Your task to perform on an android device: Open Wikipedia Image 0: 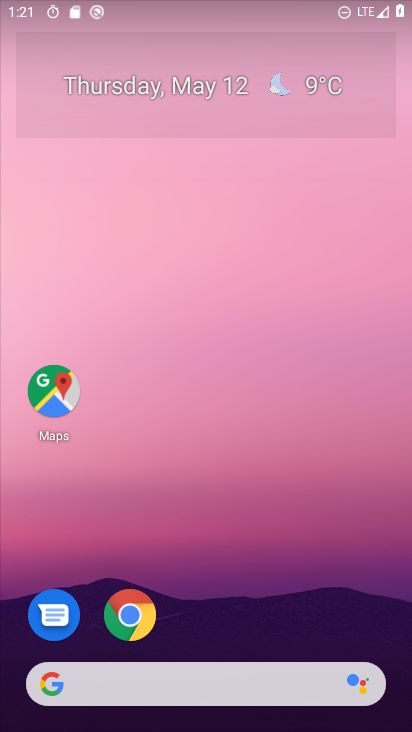
Step 0: click (138, 614)
Your task to perform on an android device: Open Wikipedia Image 1: 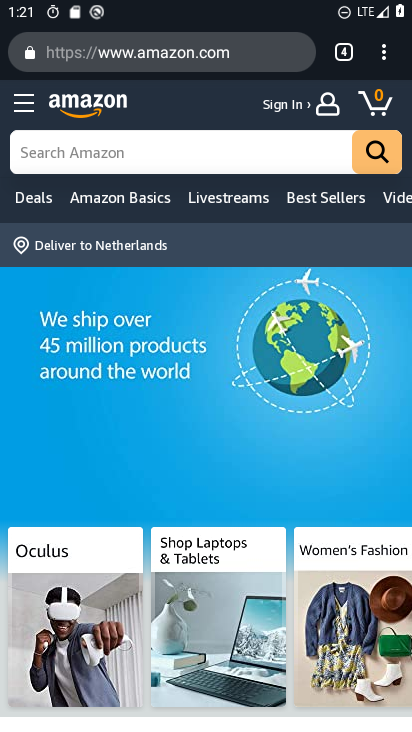
Step 1: click (212, 59)
Your task to perform on an android device: Open Wikipedia Image 2: 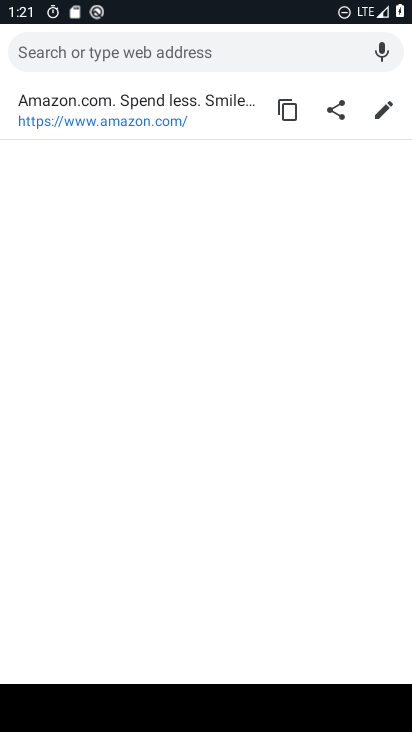
Step 2: type "wikipedia"
Your task to perform on an android device: Open Wikipedia Image 3: 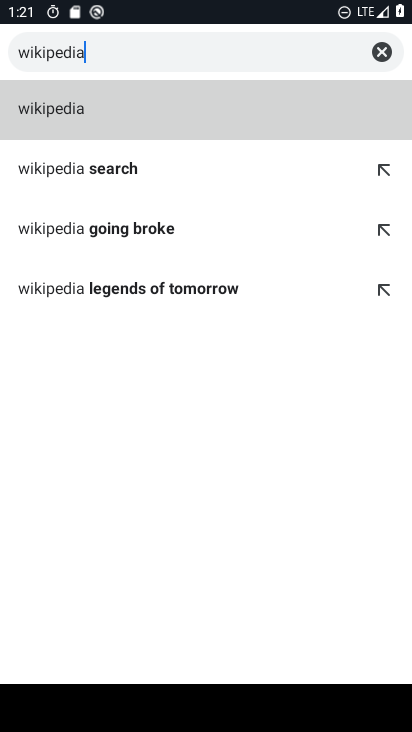
Step 3: click (68, 111)
Your task to perform on an android device: Open Wikipedia Image 4: 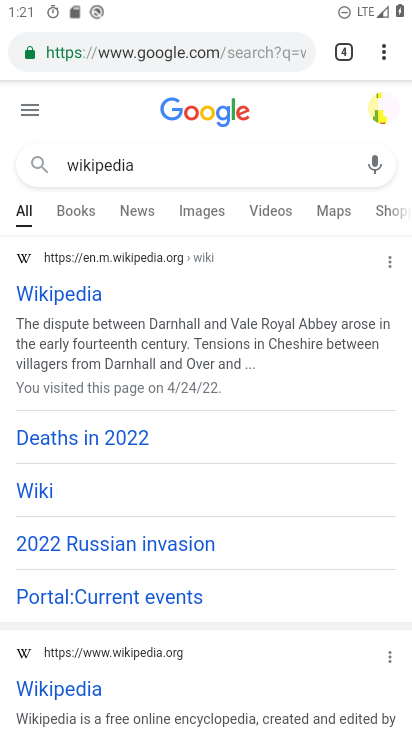
Step 4: click (80, 294)
Your task to perform on an android device: Open Wikipedia Image 5: 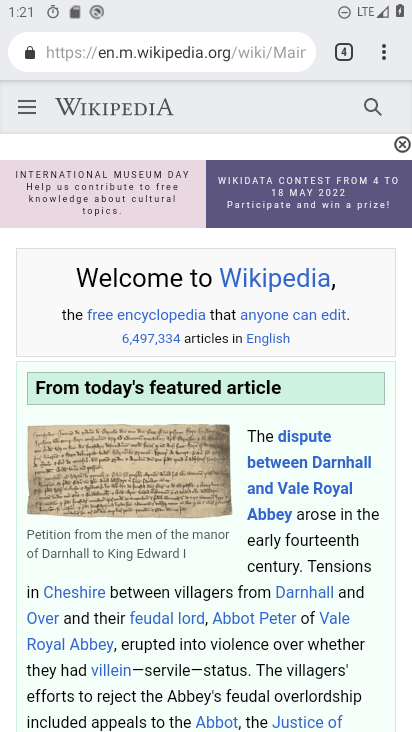
Step 5: task complete